Your task to perform on an android device: check storage Image 0: 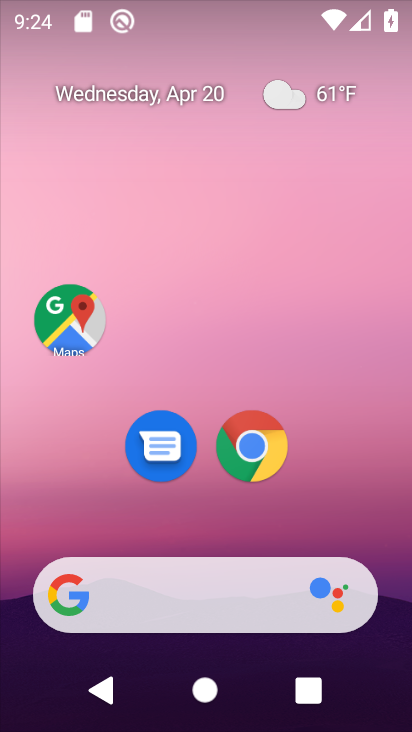
Step 0: drag from (353, 487) to (400, 132)
Your task to perform on an android device: check storage Image 1: 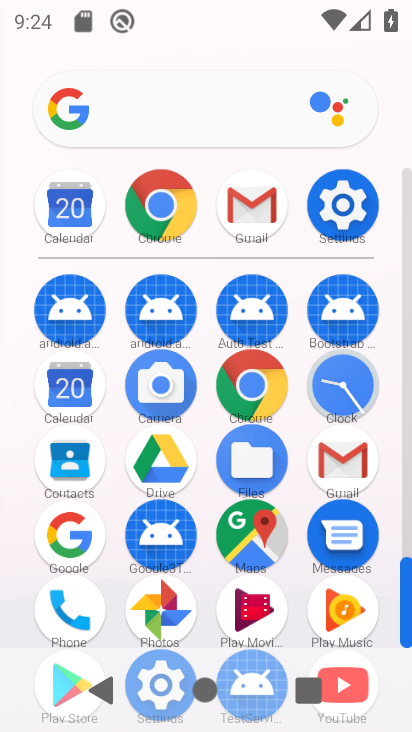
Step 1: click (334, 199)
Your task to perform on an android device: check storage Image 2: 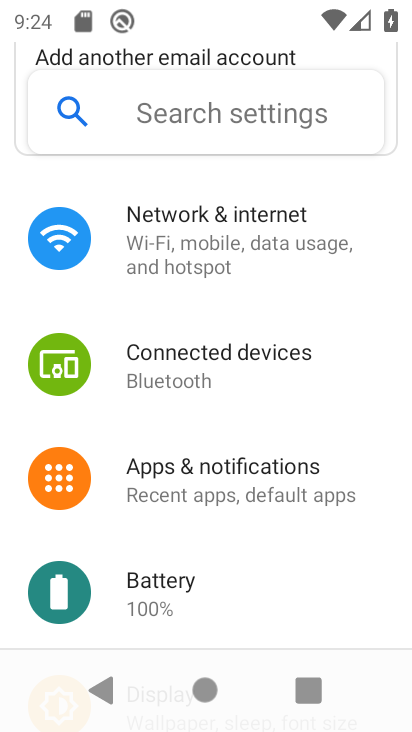
Step 2: drag from (303, 582) to (300, 328)
Your task to perform on an android device: check storage Image 3: 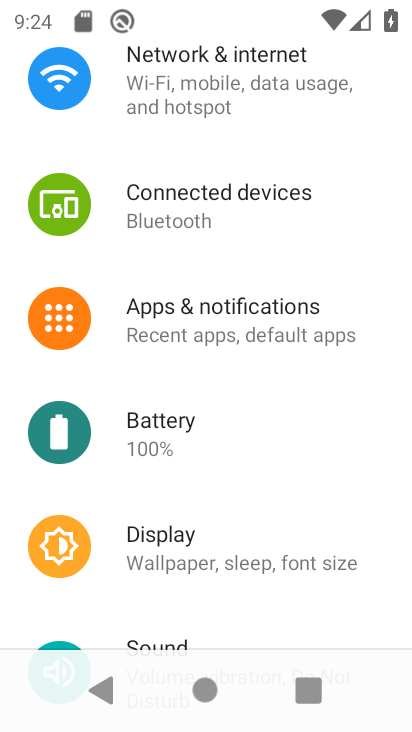
Step 3: drag from (293, 441) to (307, 234)
Your task to perform on an android device: check storage Image 4: 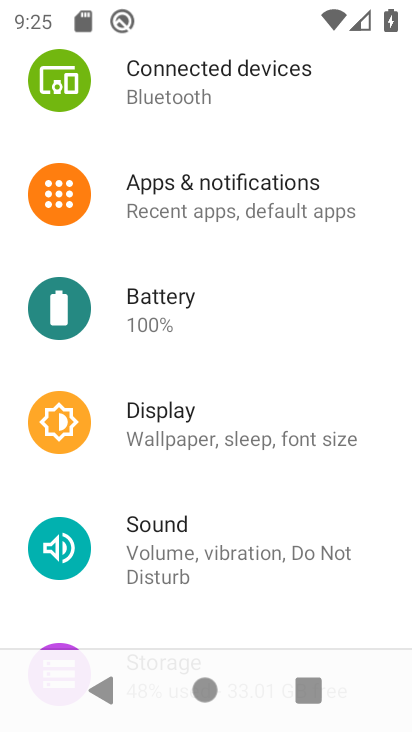
Step 4: drag from (260, 492) to (269, 288)
Your task to perform on an android device: check storage Image 5: 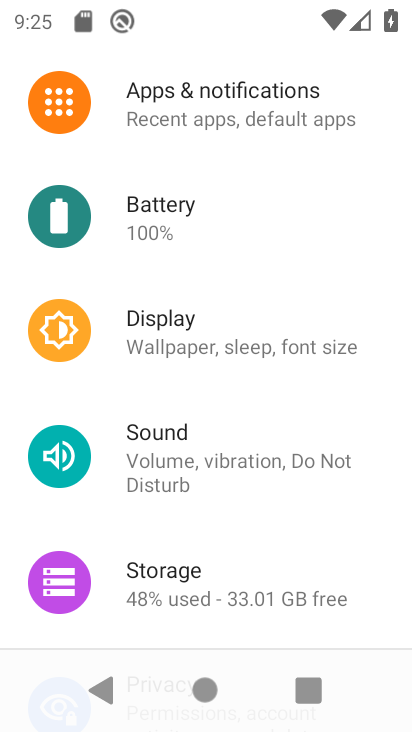
Step 5: click (194, 570)
Your task to perform on an android device: check storage Image 6: 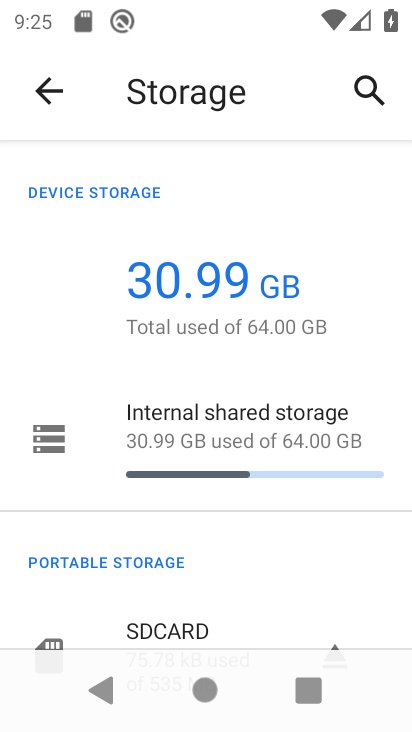
Step 6: click (26, 434)
Your task to perform on an android device: check storage Image 7: 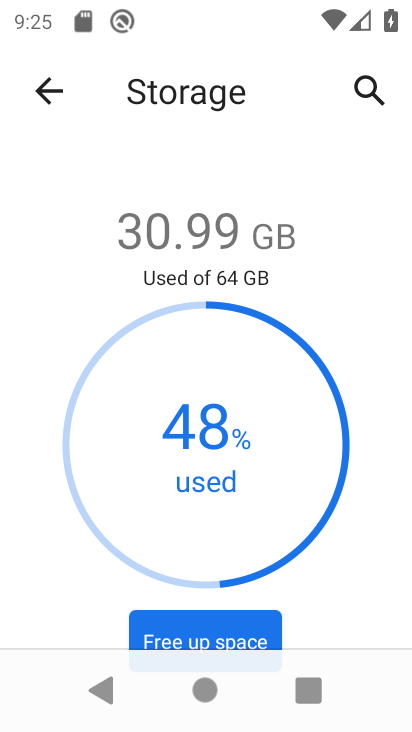
Step 7: task complete